Your task to perform on an android device: Search for seafood restaurants on Google Maps Image 0: 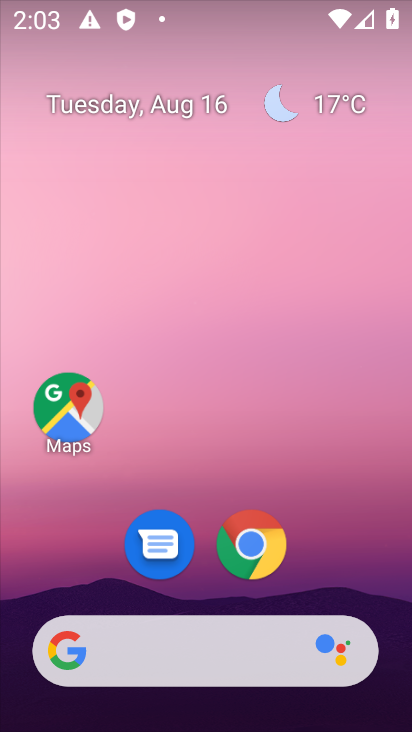
Step 0: drag from (210, 680) to (161, 200)
Your task to perform on an android device: Search for seafood restaurants on Google Maps Image 1: 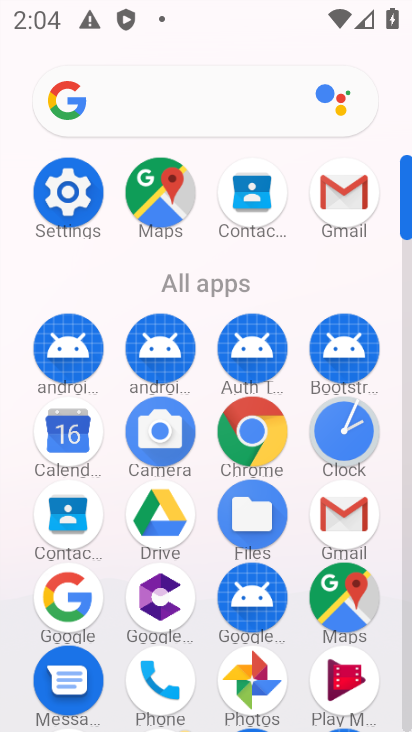
Step 1: click (162, 187)
Your task to perform on an android device: Search for seafood restaurants on Google Maps Image 2: 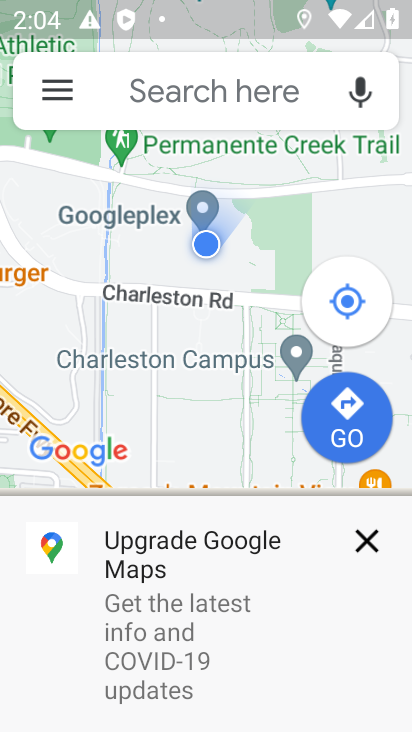
Step 2: click (223, 101)
Your task to perform on an android device: Search for seafood restaurants on Google Maps Image 3: 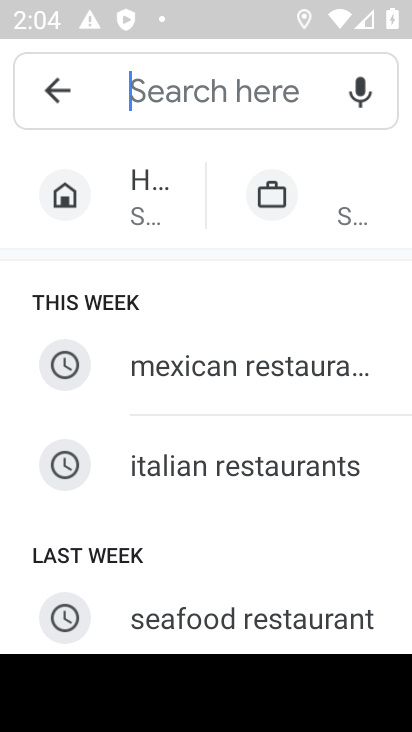
Step 3: type "seafood restaurants"
Your task to perform on an android device: Search for seafood restaurants on Google Maps Image 4: 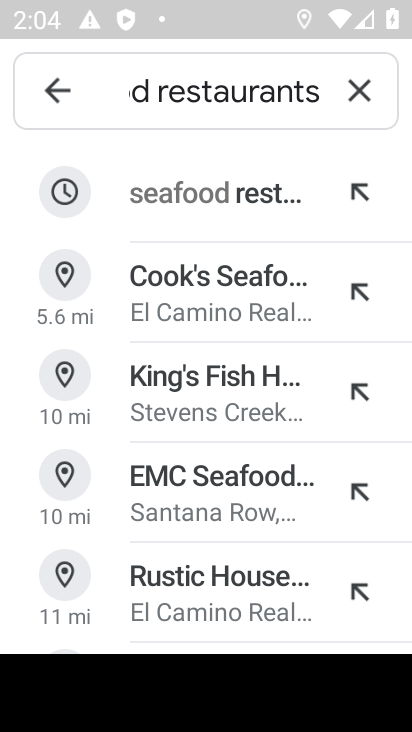
Step 4: click (229, 200)
Your task to perform on an android device: Search for seafood restaurants on Google Maps Image 5: 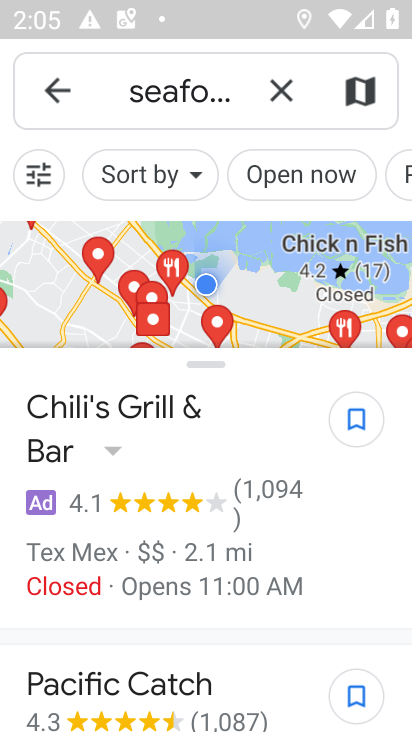
Step 5: task complete